Your task to perform on an android device: Go to sound settings Image 0: 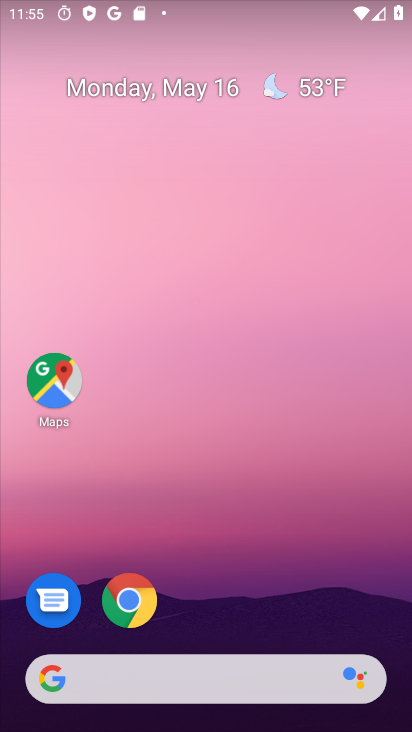
Step 0: drag from (254, 482) to (73, 1)
Your task to perform on an android device: Go to sound settings Image 1: 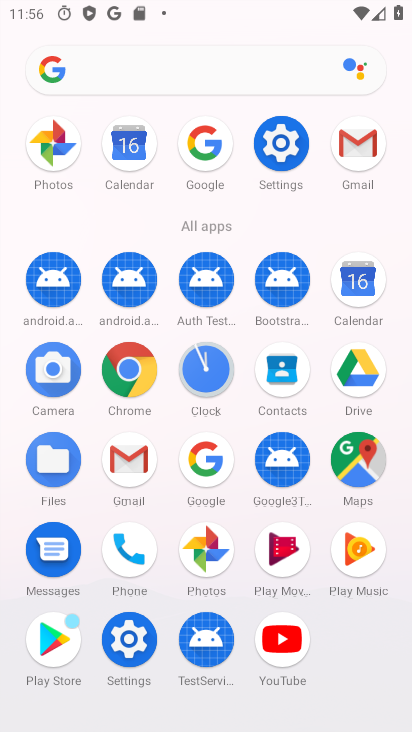
Step 1: click (131, 636)
Your task to perform on an android device: Go to sound settings Image 2: 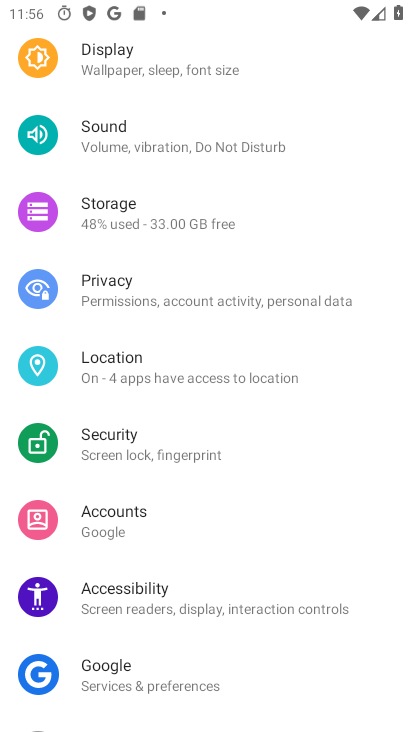
Step 2: click (153, 131)
Your task to perform on an android device: Go to sound settings Image 3: 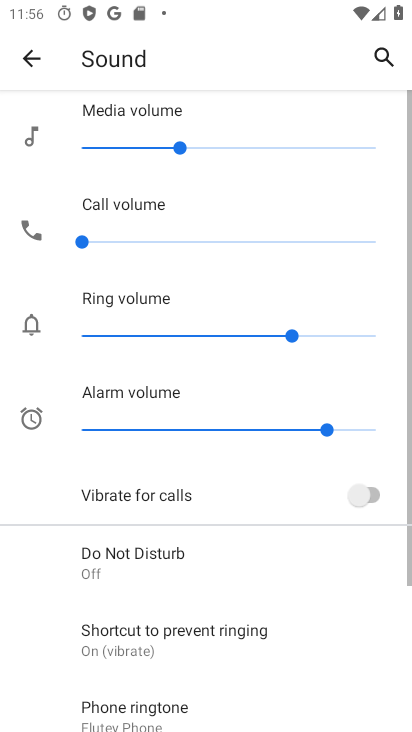
Step 3: task complete